Your task to perform on an android device: turn off smart reply in the gmail app Image 0: 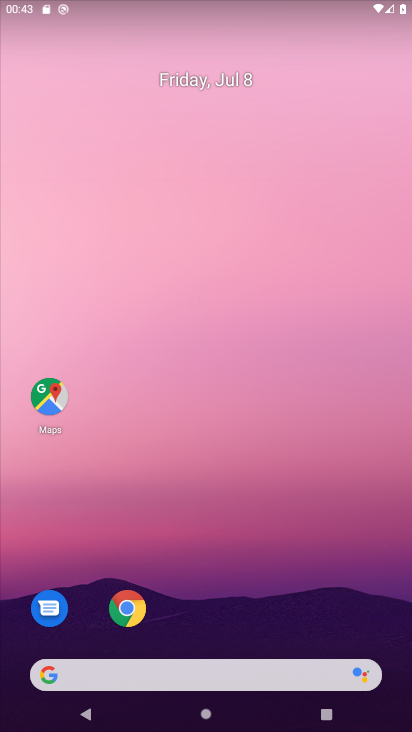
Step 0: drag from (257, 601) to (293, 216)
Your task to perform on an android device: turn off smart reply in the gmail app Image 1: 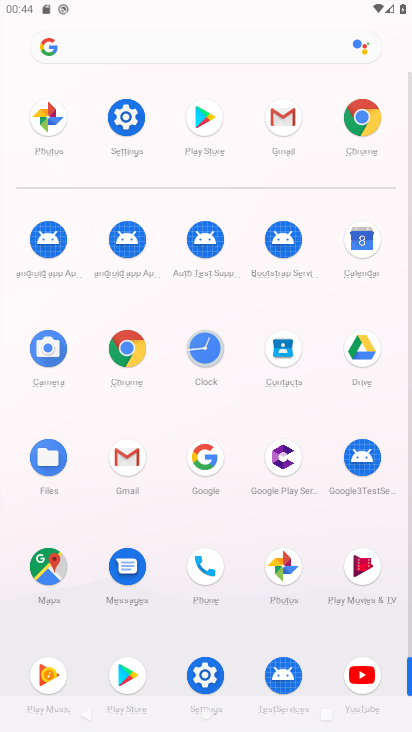
Step 1: click (290, 122)
Your task to perform on an android device: turn off smart reply in the gmail app Image 2: 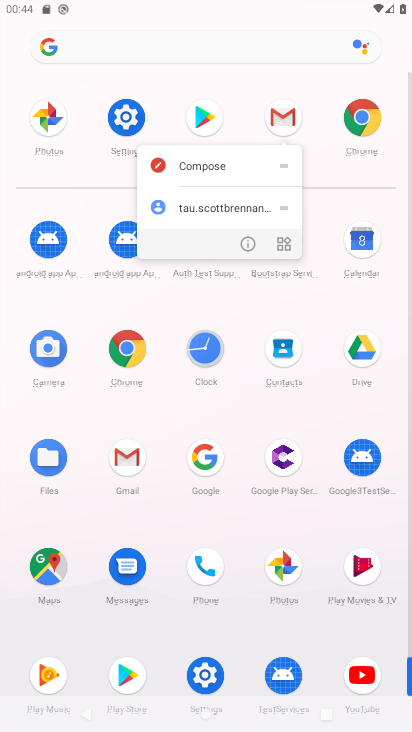
Step 2: click (273, 118)
Your task to perform on an android device: turn off smart reply in the gmail app Image 3: 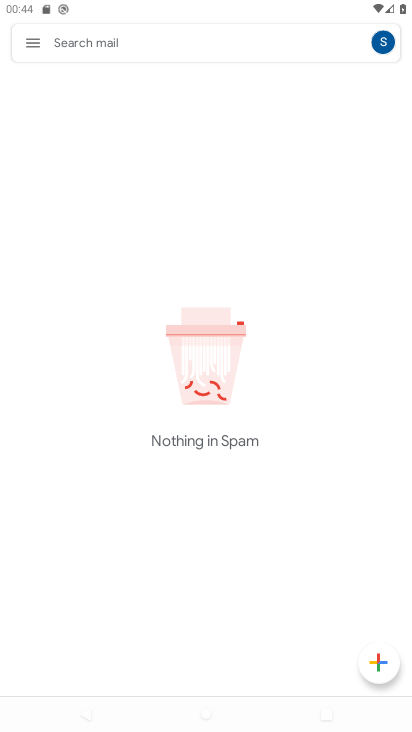
Step 3: click (25, 27)
Your task to perform on an android device: turn off smart reply in the gmail app Image 4: 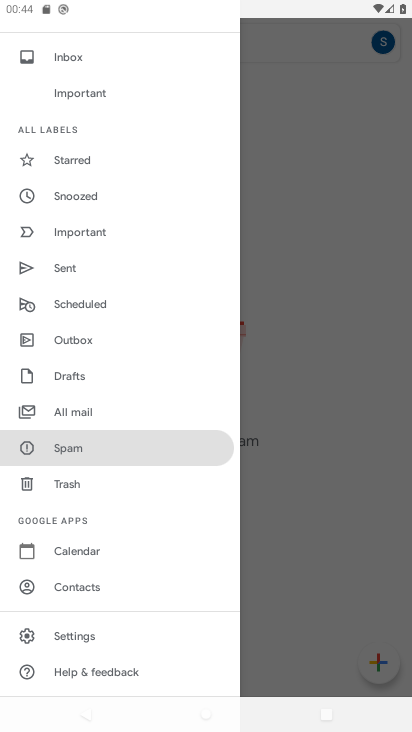
Step 4: click (98, 632)
Your task to perform on an android device: turn off smart reply in the gmail app Image 5: 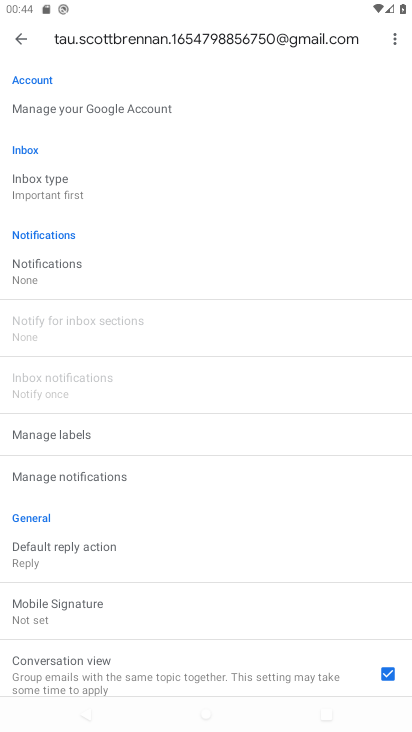
Step 5: drag from (111, 592) to (163, 222)
Your task to perform on an android device: turn off smart reply in the gmail app Image 6: 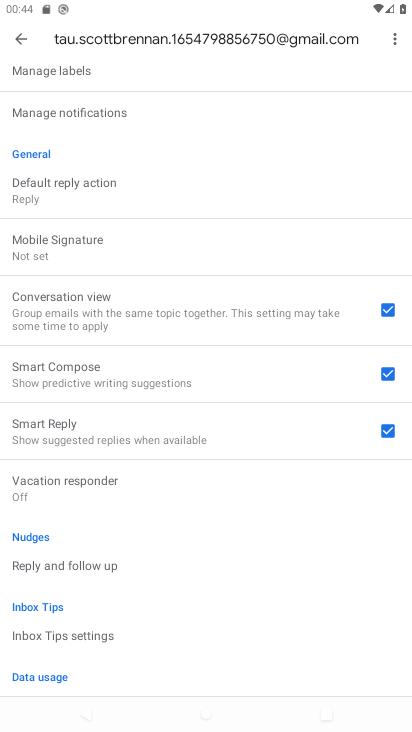
Step 6: click (388, 419)
Your task to perform on an android device: turn off smart reply in the gmail app Image 7: 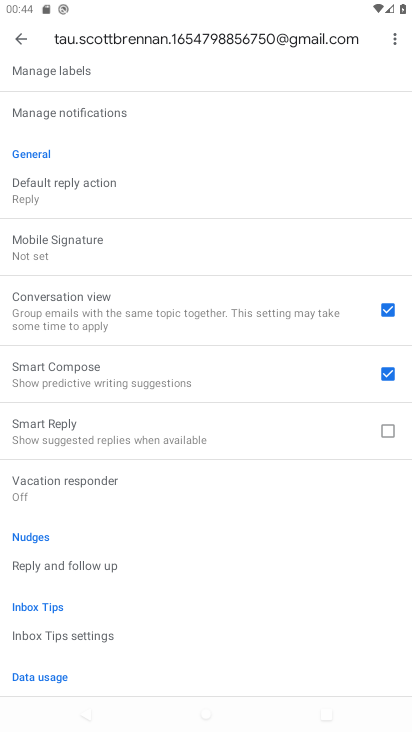
Step 7: task complete